Your task to perform on an android device: Go to Reddit.com Image 0: 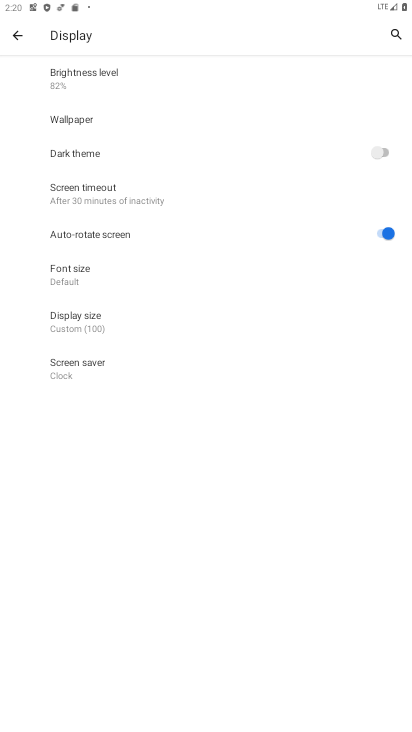
Step 0: press home button
Your task to perform on an android device: Go to Reddit.com Image 1: 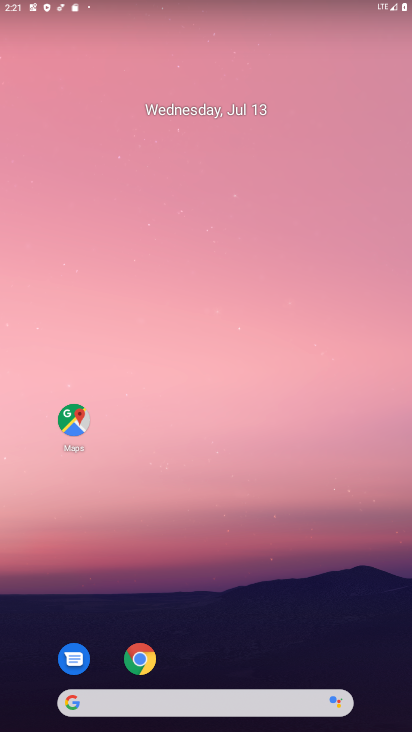
Step 1: click (140, 660)
Your task to perform on an android device: Go to Reddit.com Image 2: 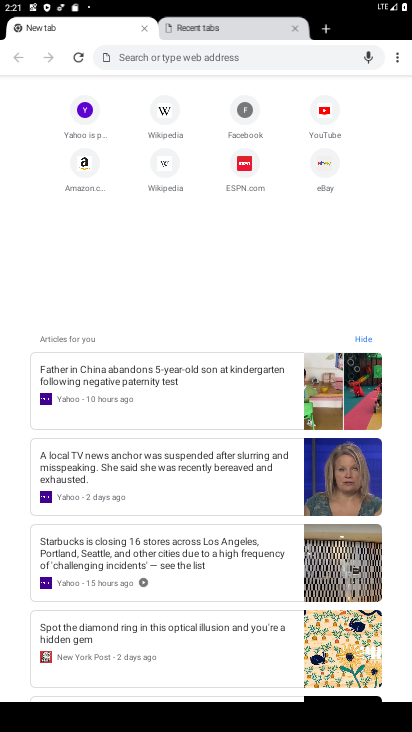
Step 2: type "Reddit.com"
Your task to perform on an android device: Go to Reddit.com Image 3: 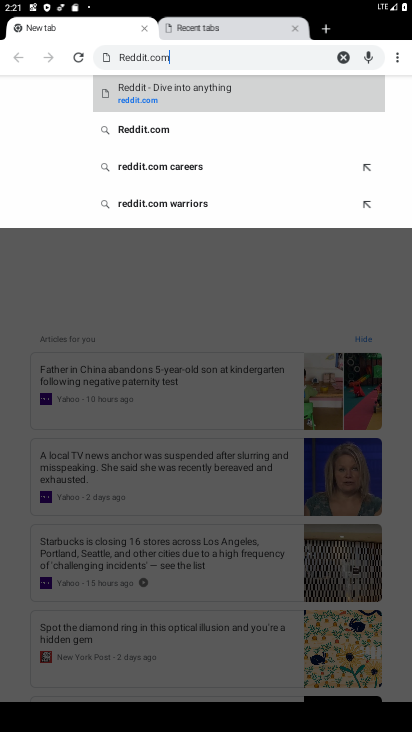
Step 3: click (123, 83)
Your task to perform on an android device: Go to Reddit.com Image 4: 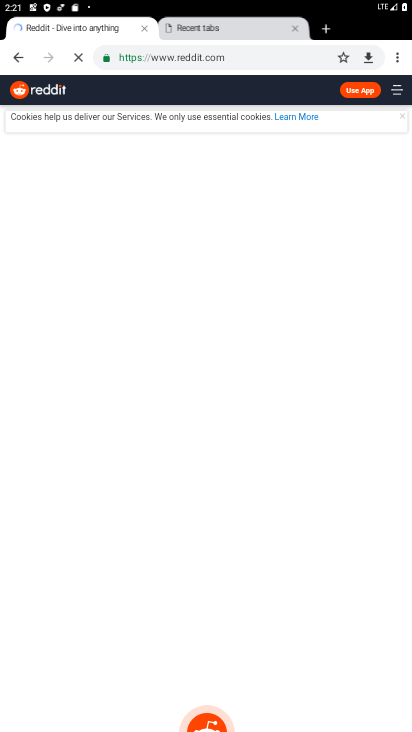
Step 4: task complete